Your task to perform on an android device: Open display settings Image 0: 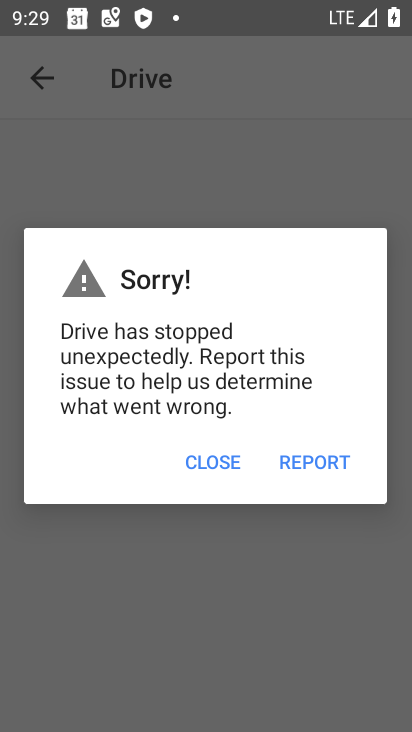
Step 0: press back button
Your task to perform on an android device: Open display settings Image 1: 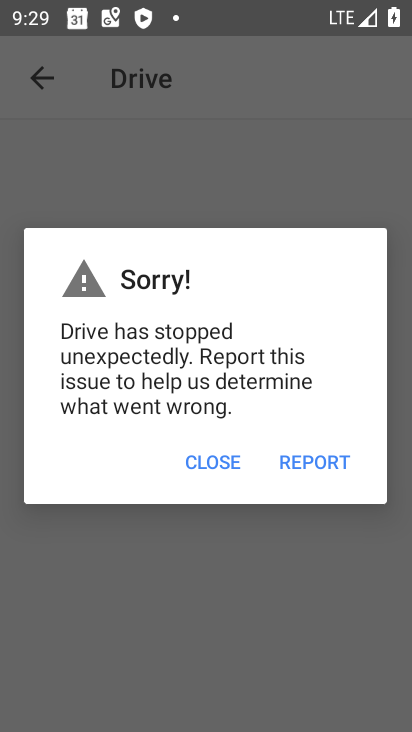
Step 1: press back button
Your task to perform on an android device: Open display settings Image 2: 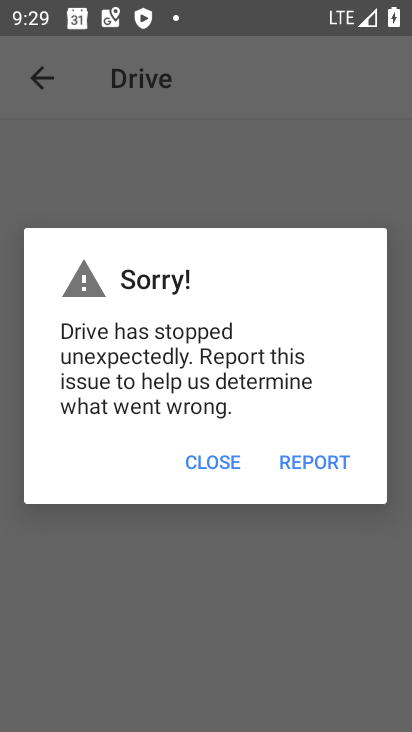
Step 2: press home button
Your task to perform on an android device: Open display settings Image 3: 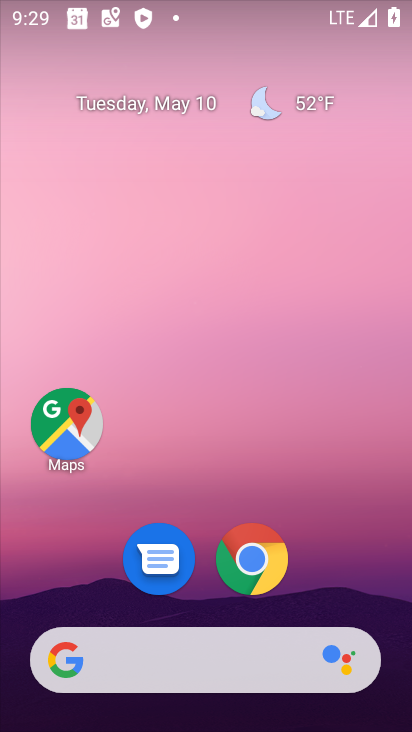
Step 3: drag from (306, 565) to (217, 19)
Your task to perform on an android device: Open display settings Image 4: 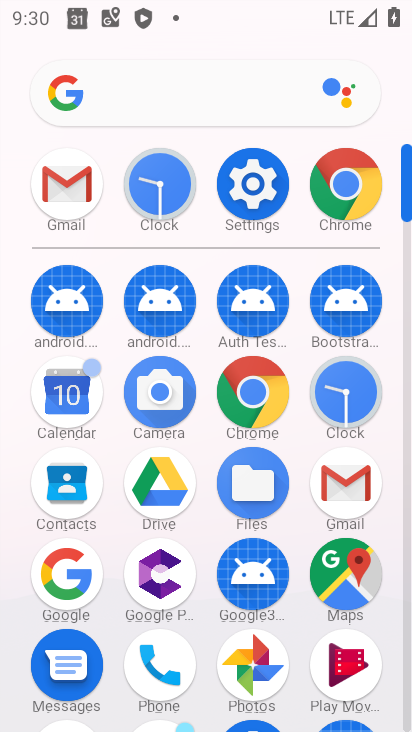
Step 4: drag from (11, 544) to (2, 273)
Your task to perform on an android device: Open display settings Image 5: 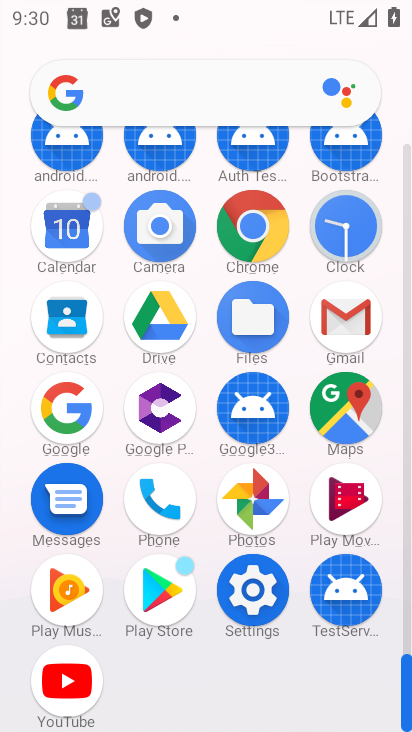
Step 5: click (248, 588)
Your task to perform on an android device: Open display settings Image 6: 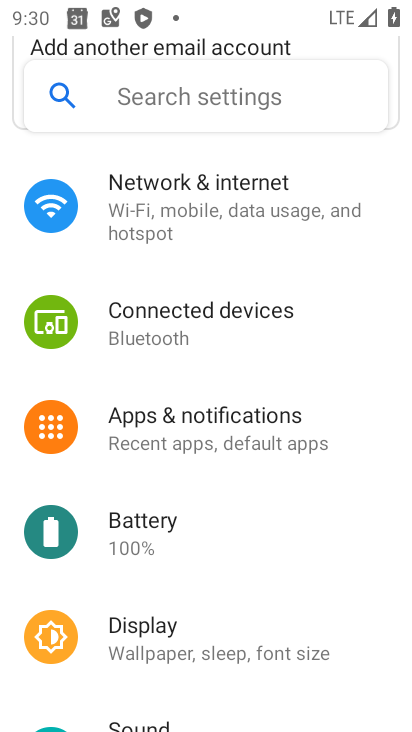
Step 6: drag from (236, 533) to (222, 341)
Your task to perform on an android device: Open display settings Image 7: 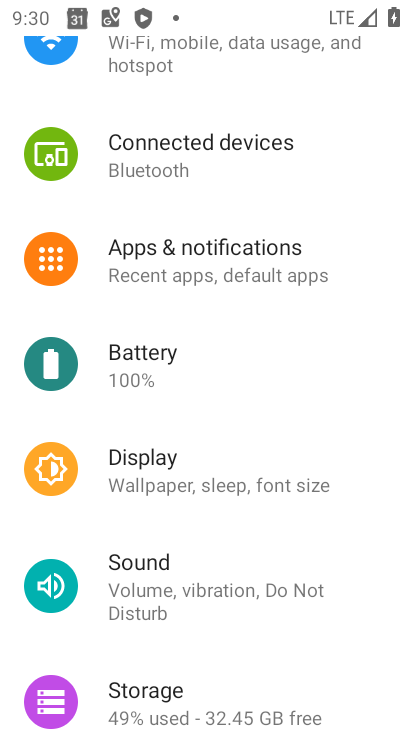
Step 7: click (176, 482)
Your task to perform on an android device: Open display settings Image 8: 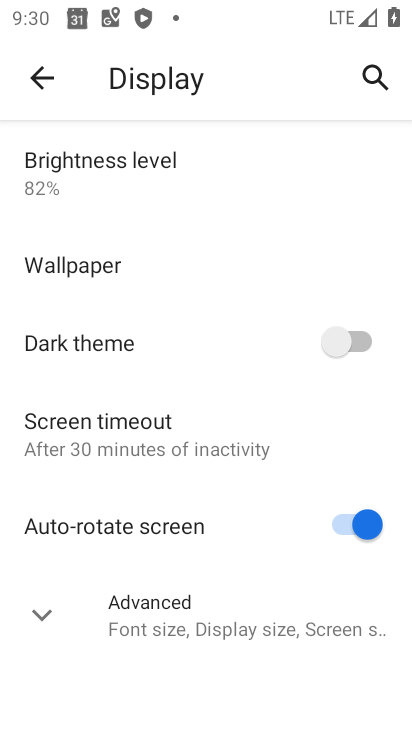
Step 8: click (46, 609)
Your task to perform on an android device: Open display settings Image 9: 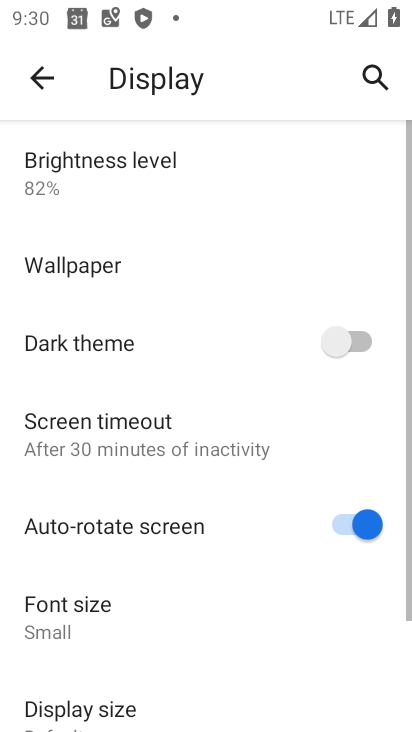
Step 9: task complete